Your task to perform on an android device: Open the Play Movies app and select the watchlist tab. Image 0: 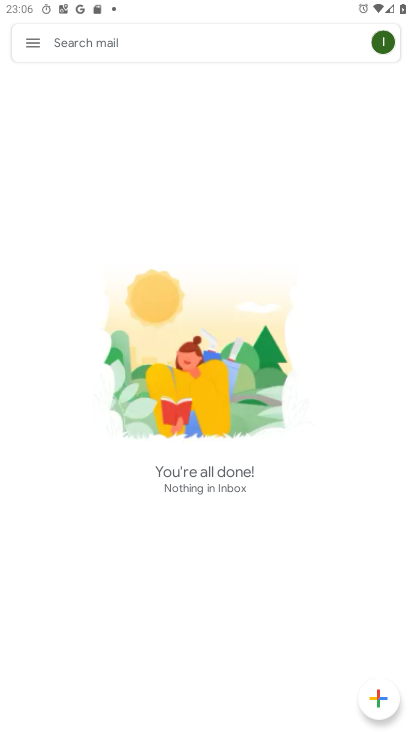
Step 0: press home button
Your task to perform on an android device: Open the Play Movies app and select the watchlist tab. Image 1: 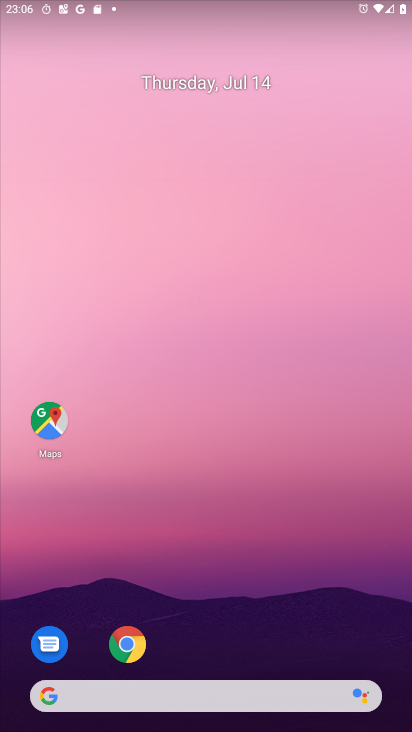
Step 1: drag from (264, 665) to (240, 109)
Your task to perform on an android device: Open the Play Movies app and select the watchlist tab. Image 2: 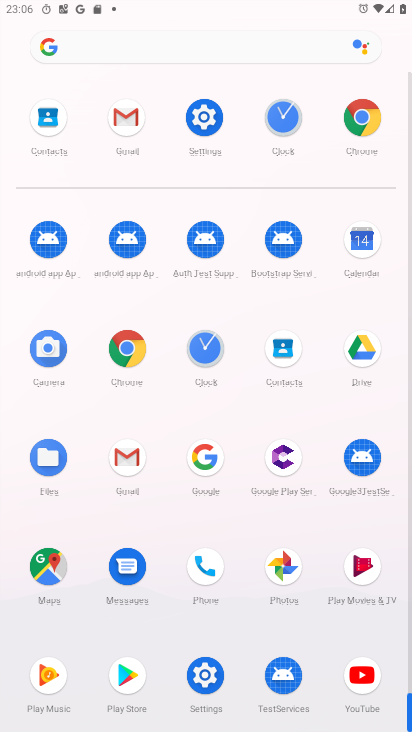
Step 2: click (363, 572)
Your task to perform on an android device: Open the Play Movies app and select the watchlist tab. Image 3: 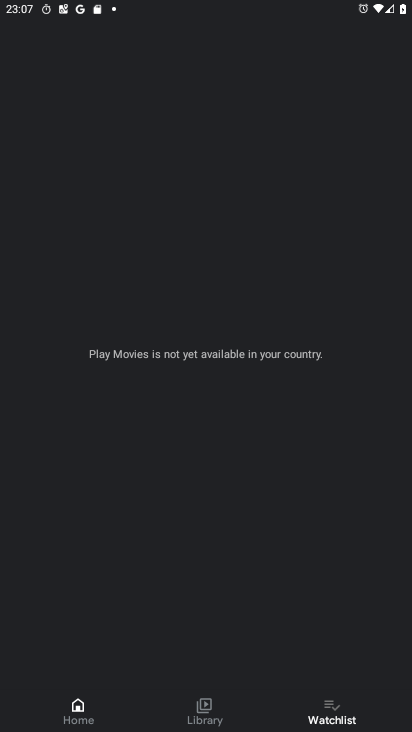
Step 3: task complete